Your task to perform on an android device: Toggle the flashlight Image 0: 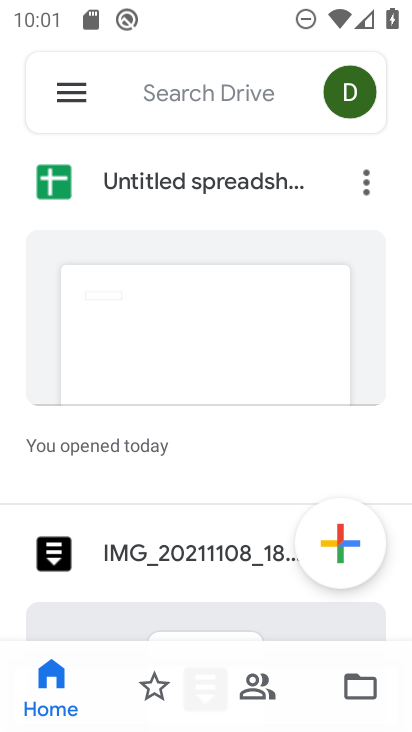
Step 0: press home button
Your task to perform on an android device: Toggle the flashlight Image 1: 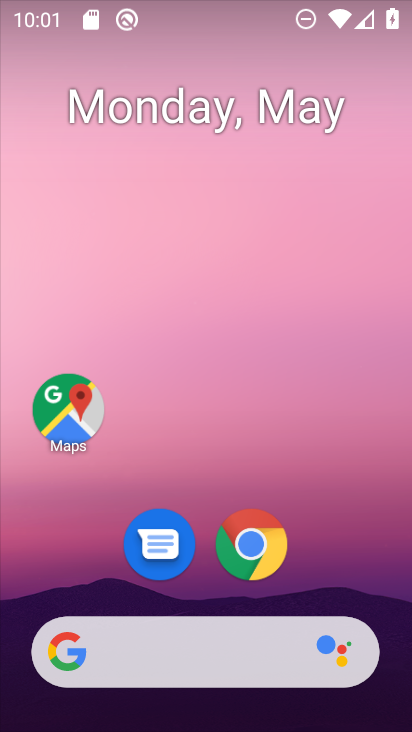
Step 1: drag from (319, 554) to (266, 148)
Your task to perform on an android device: Toggle the flashlight Image 2: 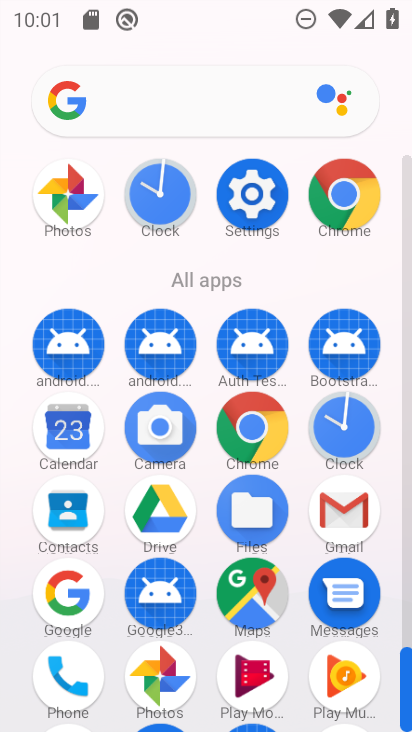
Step 2: click (244, 201)
Your task to perform on an android device: Toggle the flashlight Image 3: 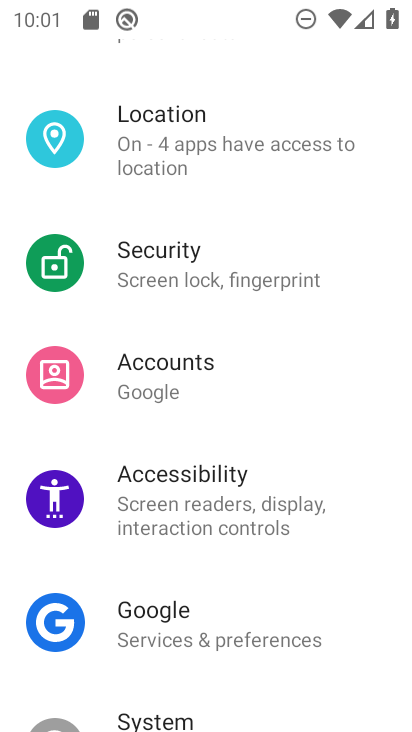
Step 3: drag from (205, 86) to (244, 270)
Your task to perform on an android device: Toggle the flashlight Image 4: 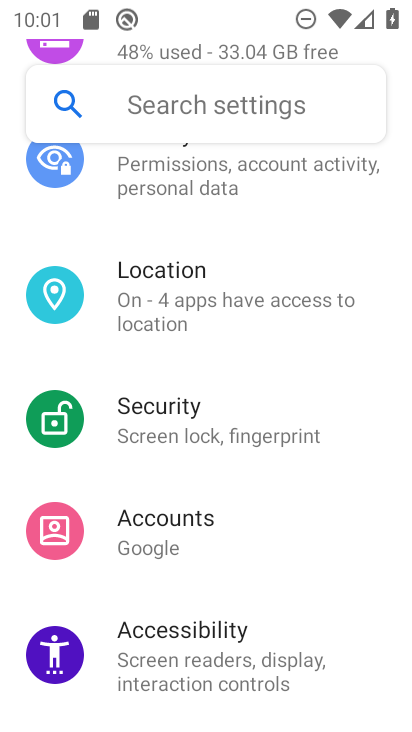
Step 4: click (205, 100)
Your task to perform on an android device: Toggle the flashlight Image 5: 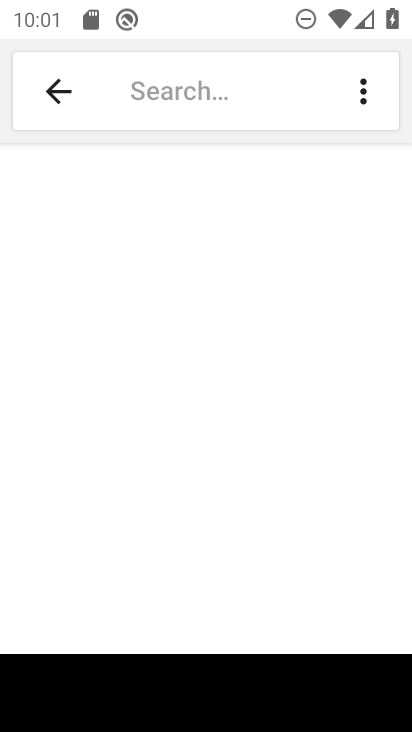
Step 5: click (276, 101)
Your task to perform on an android device: Toggle the flashlight Image 6: 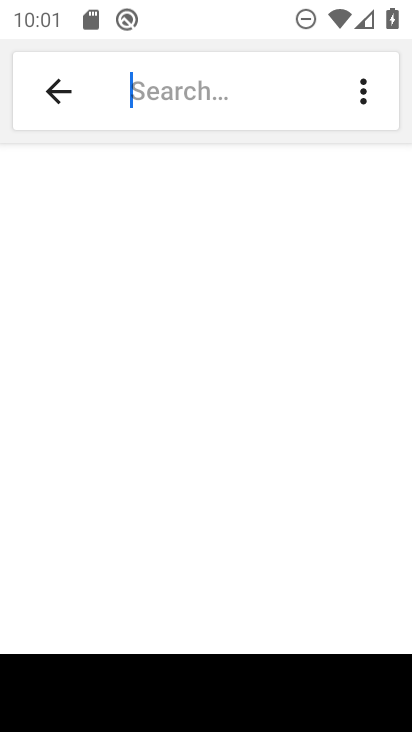
Step 6: type "flashlight"
Your task to perform on an android device: Toggle the flashlight Image 7: 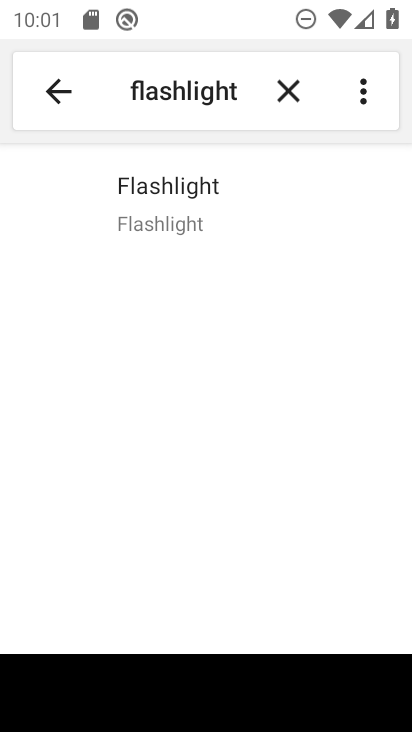
Step 7: click (218, 187)
Your task to perform on an android device: Toggle the flashlight Image 8: 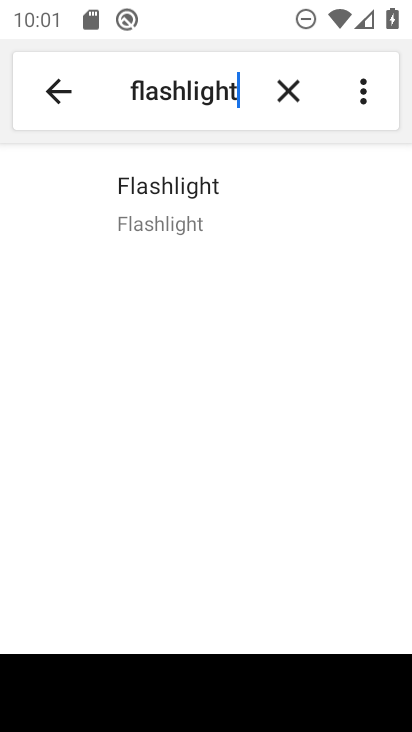
Step 8: click (178, 202)
Your task to perform on an android device: Toggle the flashlight Image 9: 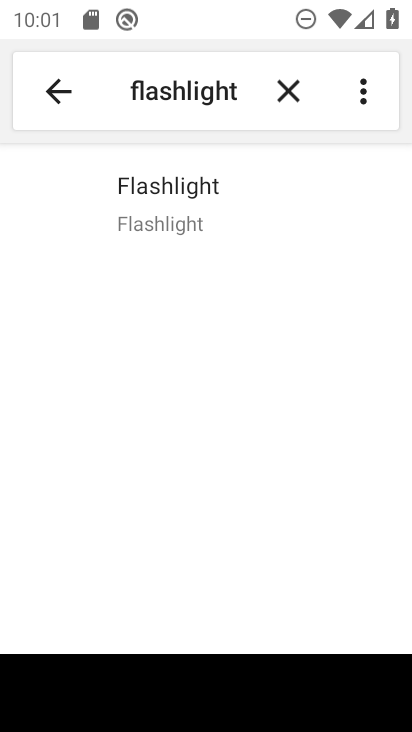
Step 9: click (178, 202)
Your task to perform on an android device: Toggle the flashlight Image 10: 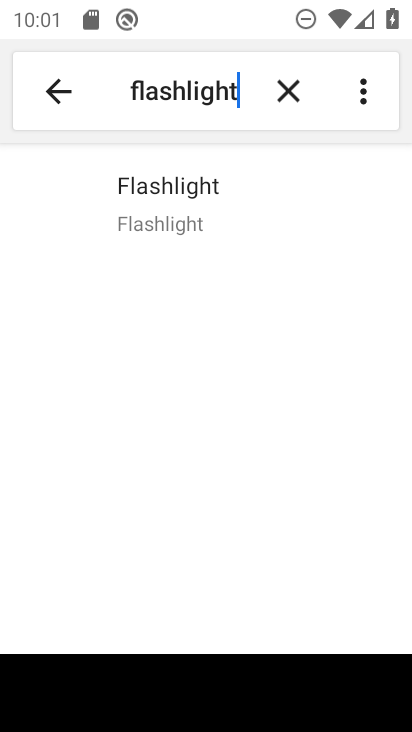
Step 10: task complete